Your task to perform on an android device: Go to Android settings Image 0: 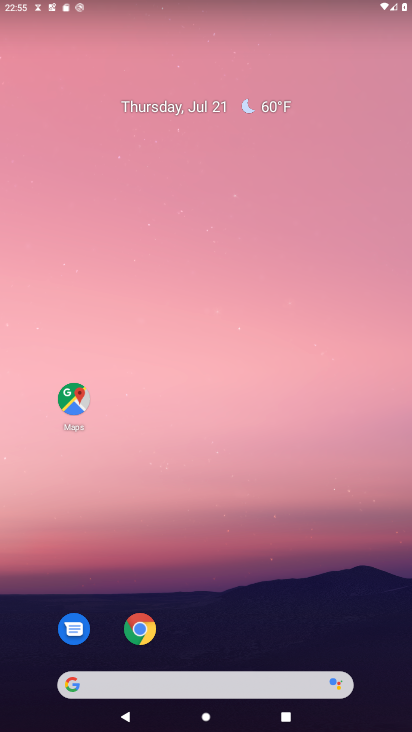
Step 0: drag from (199, 592) to (202, 131)
Your task to perform on an android device: Go to Android settings Image 1: 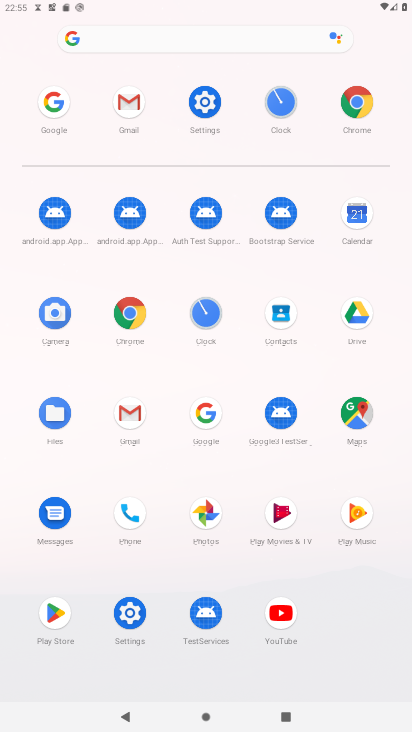
Step 1: click (200, 101)
Your task to perform on an android device: Go to Android settings Image 2: 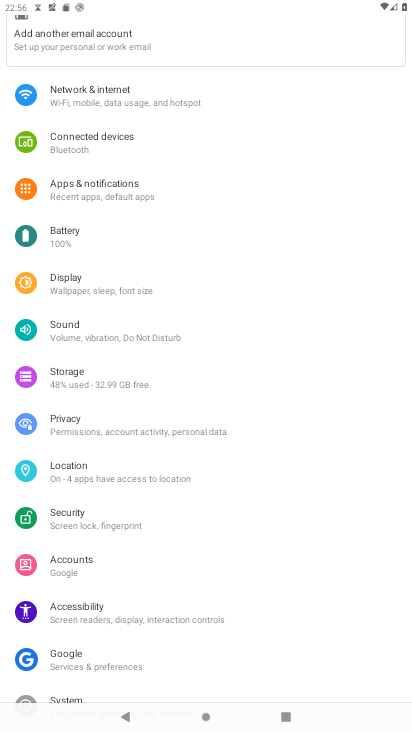
Step 2: task complete